Your task to perform on an android device: check android version Image 0: 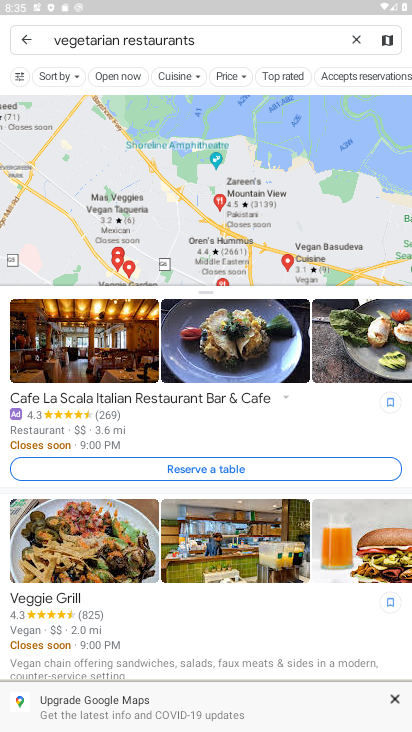
Step 0: press home button
Your task to perform on an android device: check android version Image 1: 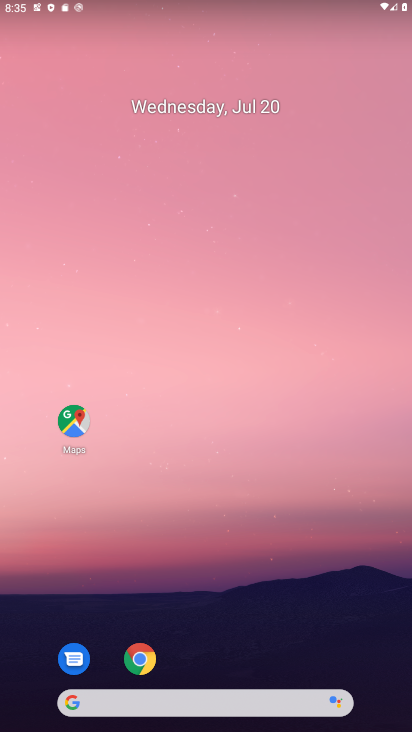
Step 1: drag from (283, 606) to (321, 57)
Your task to perform on an android device: check android version Image 2: 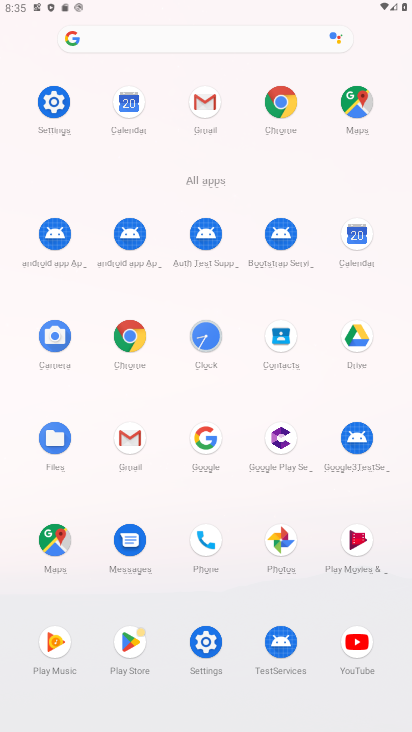
Step 2: click (205, 639)
Your task to perform on an android device: check android version Image 3: 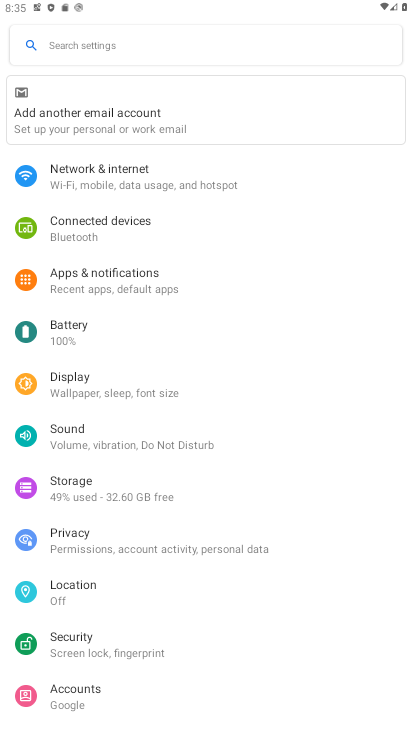
Step 3: drag from (161, 635) to (284, 74)
Your task to perform on an android device: check android version Image 4: 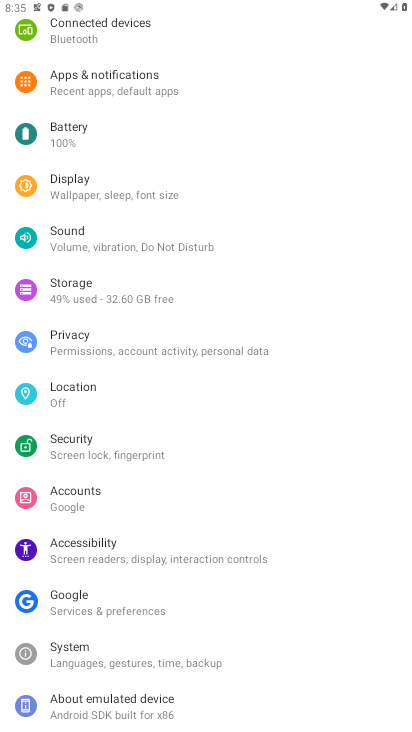
Step 4: click (135, 703)
Your task to perform on an android device: check android version Image 5: 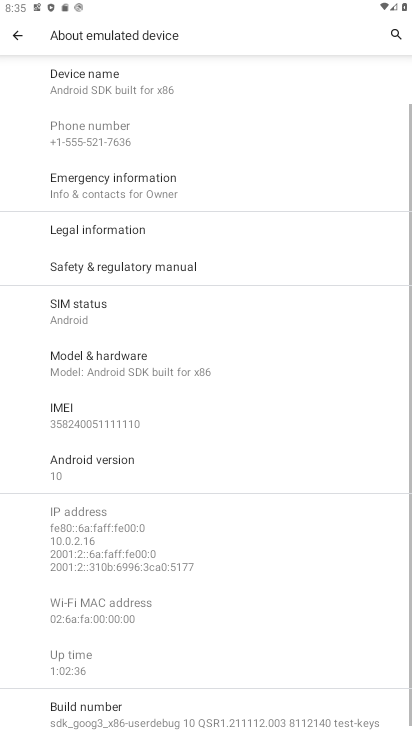
Step 5: click (111, 470)
Your task to perform on an android device: check android version Image 6: 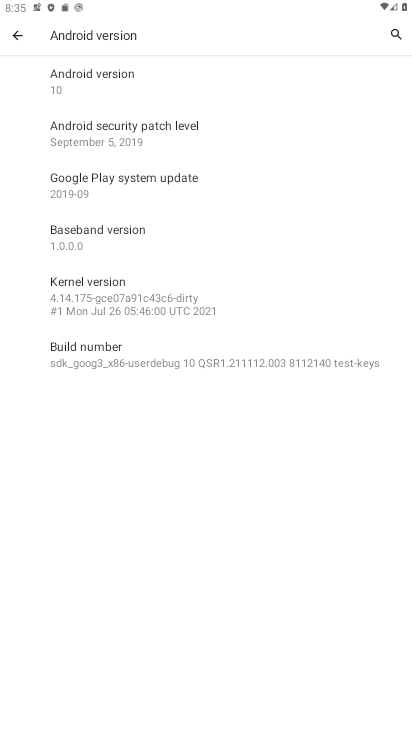
Step 6: task complete